Your task to perform on an android device: find snoozed emails in the gmail app Image 0: 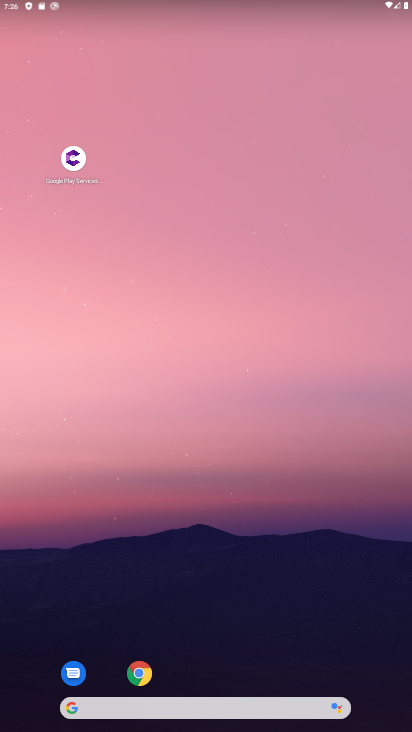
Step 0: drag from (322, 612) to (249, 0)
Your task to perform on an android device: find snoozed emails in the gmail app Image 1: 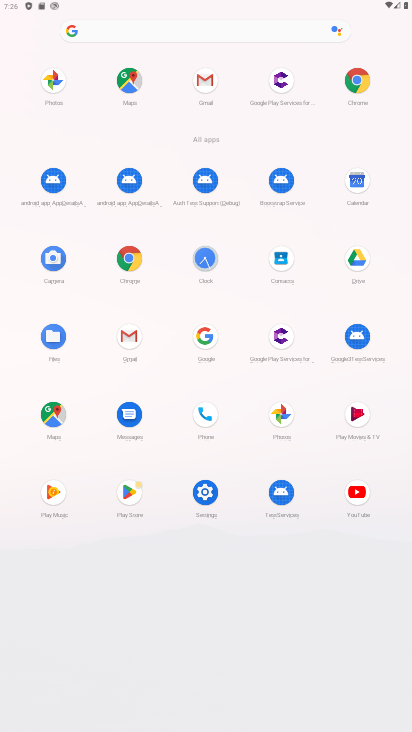
Step 1: click (205, 86)
Your task to perform on an android device: find snoozed emails in the gmail app Image 2: 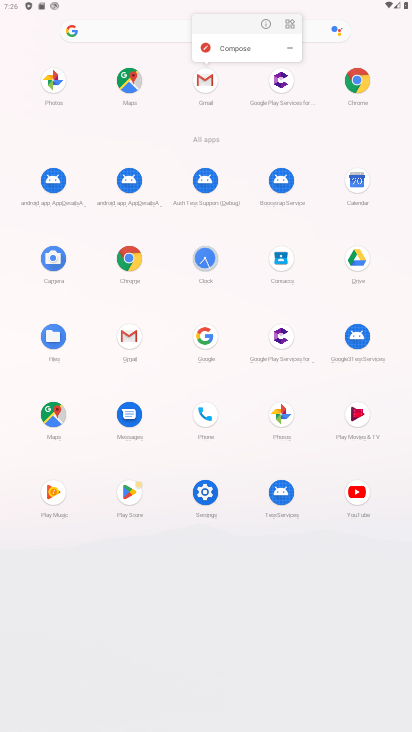
Step 2: click (205, 86)
Your task to perform on an android device: find snoozed emails in the gmail app Image 3: 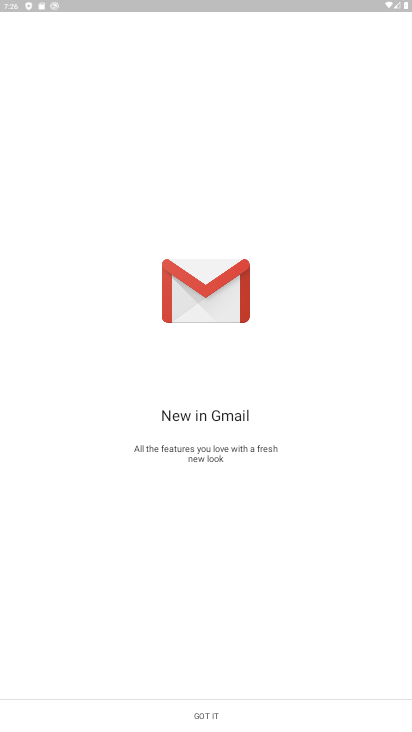
Step 3: click (184, 717)
Your task to perform on an android device: find snoozed emails in the gmail app Image 4: 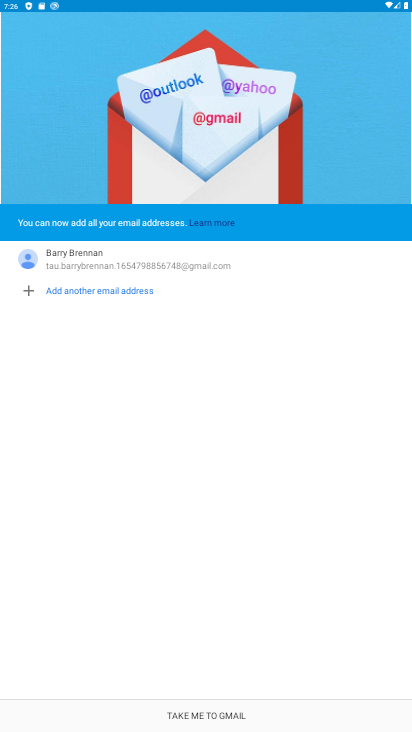
Step 4: click (184, 716)
Your task to perform on an android device: find snoozed emails in the gmail app Image 5: 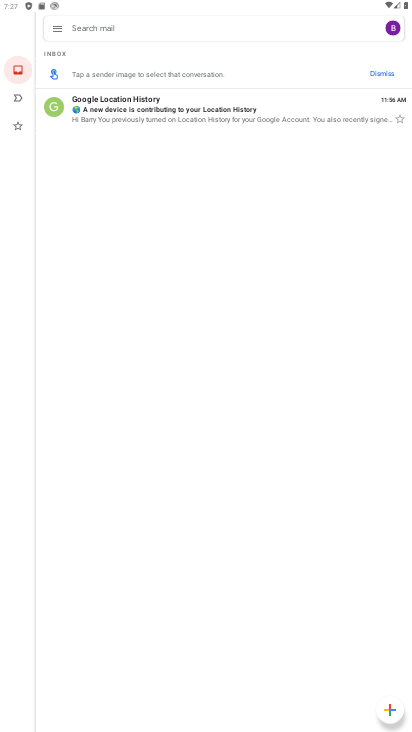
Step 5: click (61, 26)
Your task to perform on an android device: find snoozed emails in the gmail app Image 6: 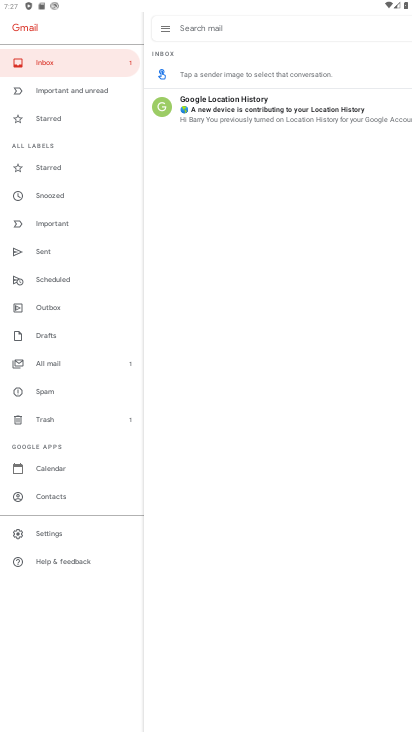
Step 6: click (42, 195)
Your task to perform on an android device: find snoozed emails in the gmail app Image 7: 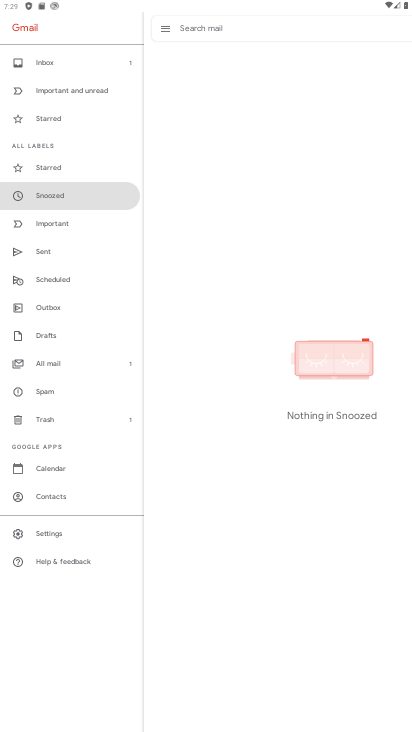
Step 7: task complete